Your task to perform on an android device: find photos in the google photos app Image 0: 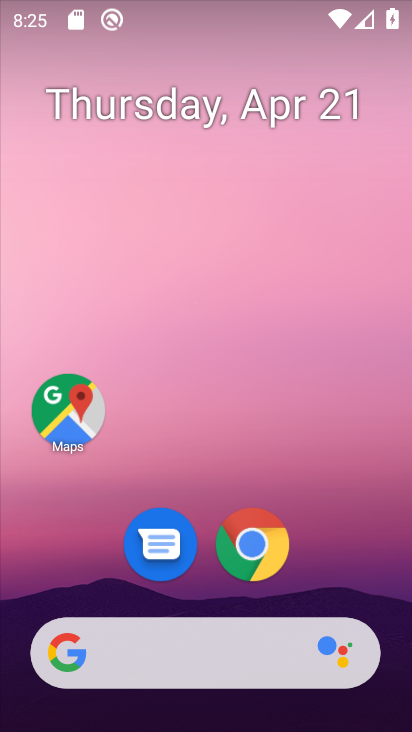
Step 0: drag from (193, 723) to (198, 160)
Your task to perform on an android device: find photos in the google photos app Image 1: 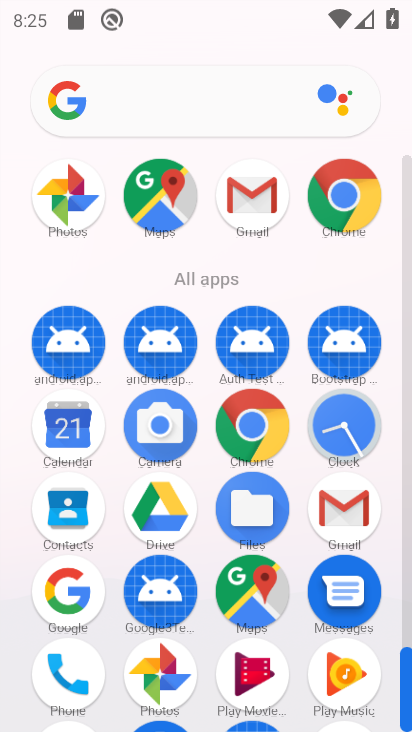
Step 1: click (58, 197)
Your task to perform on an android device: find photos in the google photos app Image 2: 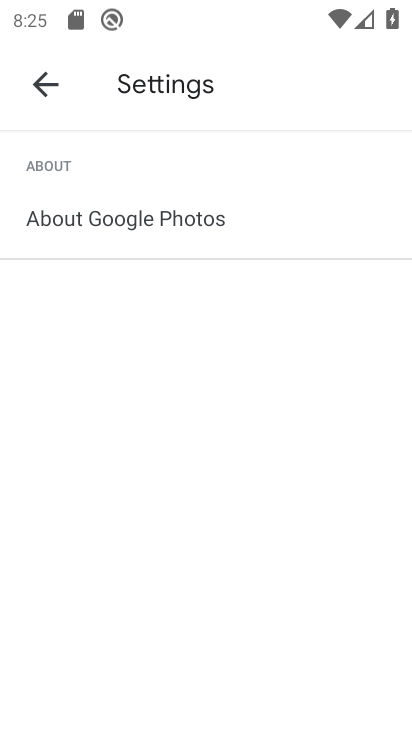
Step 2: click (46, 78)
Your task to perform on an android device: find photos in the google photos app Image 3: 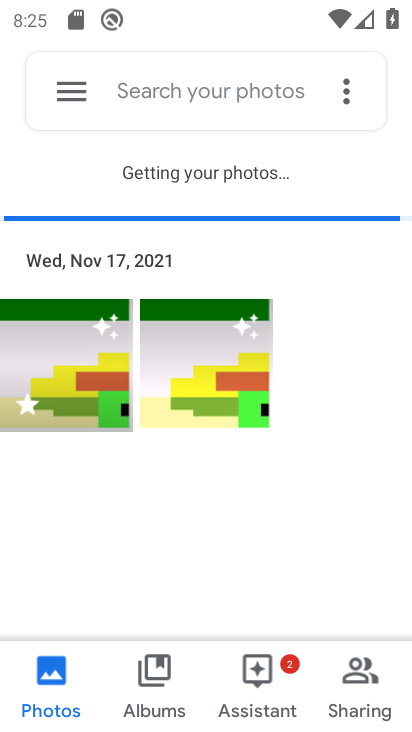
Step 3: click (98, 362)
Your task to perform on an android device: find photos in the google photos app Image 4: 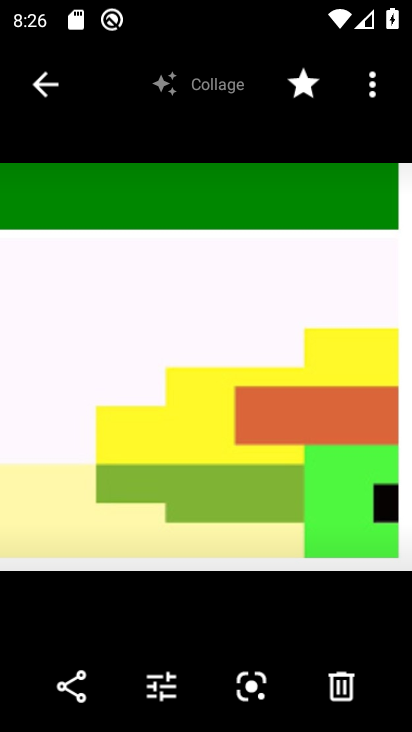
Step 4: task complete